Your task to perform on an android device: Search for Italian restaurants on Maps Image 0: 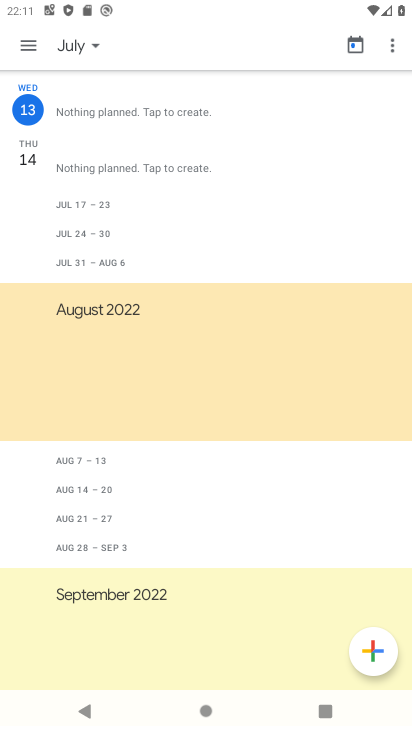
Step 0: press home button
Your task to perform on an android device: Search for Italian restaurants on Maps Image 1: 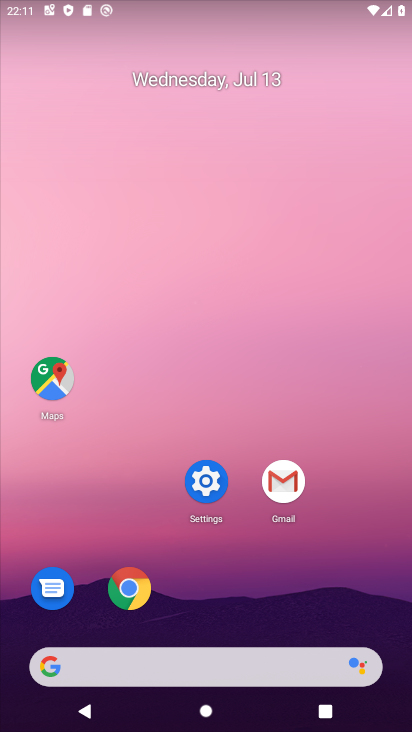
Step 1: click (43, 385)
Your task to perform on an android device: Search for Italian restaurants on Maps Image 2: 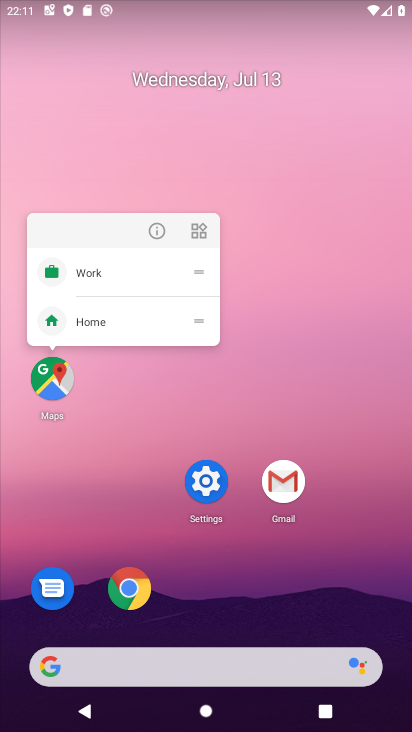
Step 2: click (52, 371)
Your task to perform on an android device: Search for Italian restaurants on Maps Image 3: 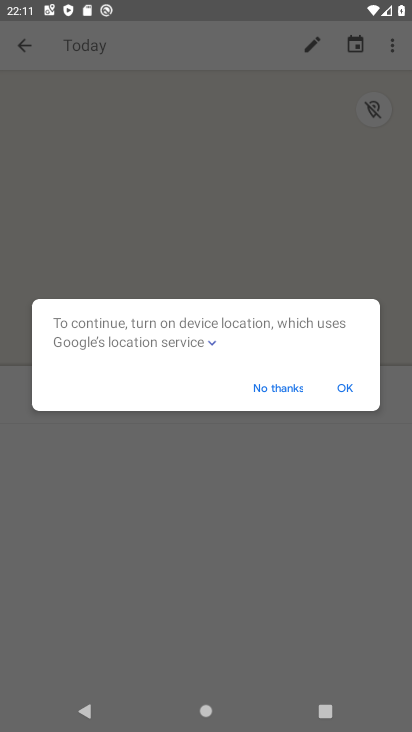
Step 3: click (23, 51)
Your task to perform on an android device: Search for Italian restaurants on Maps Image 4: 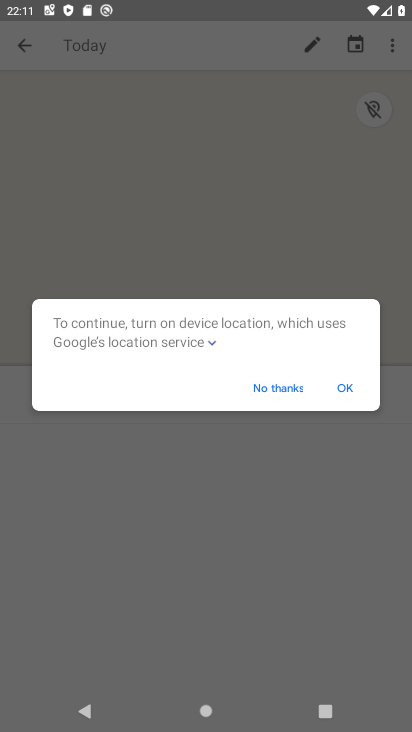
Step 4: click (351, 391)
Your task to perform on an android device: Search for Italian restaurants on Maps Image 5: 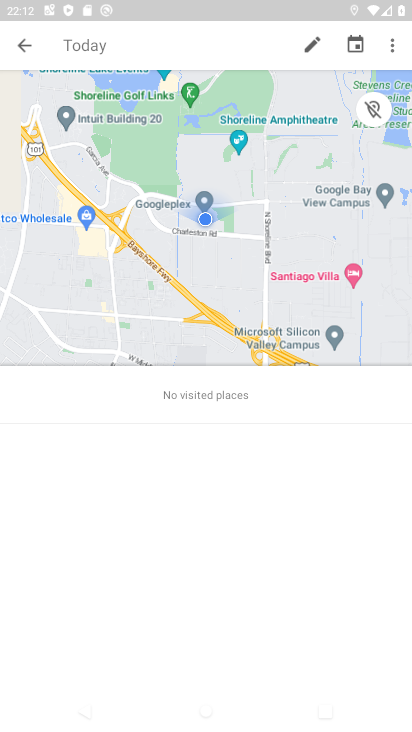
Step 5: click (18, 45)
Your task to perform on an android device: Search for Italian restaurants on Maps Image 6: 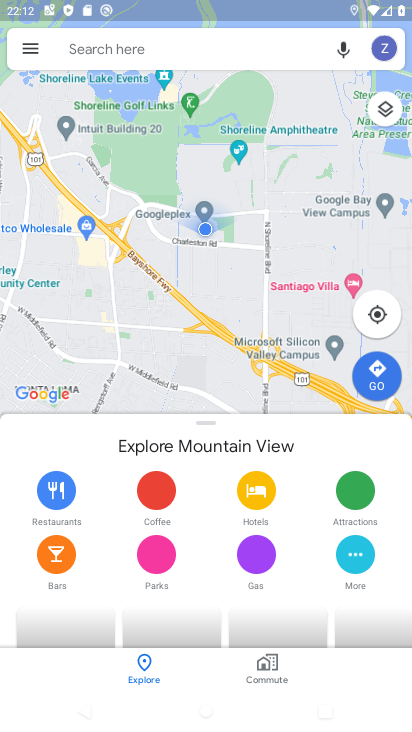
Step 6: click (94, 39)
Your task to perform on an android device: Search for Italian restaurants on Maps Image 7: 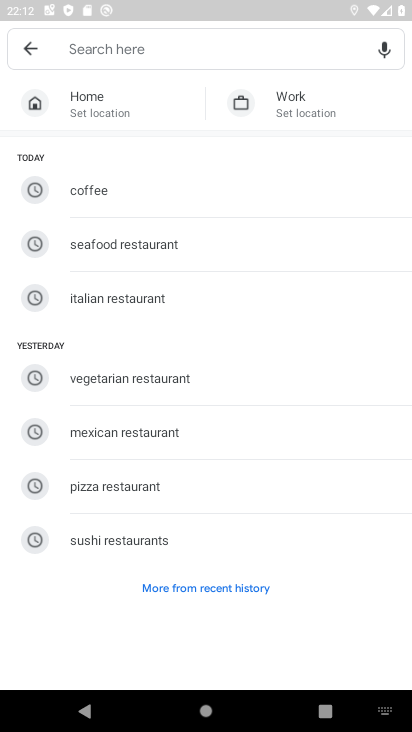
Step 7: type "Italian restaurants"
Your task to perform on an android device: Search for Italian restaurants on Maps Image 8: 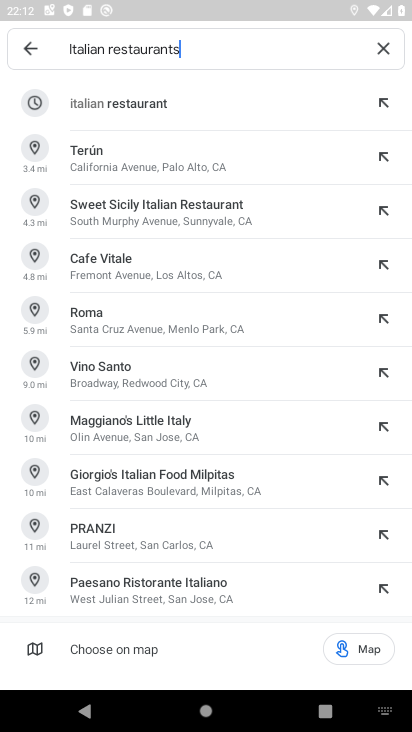
Step 8: click (148, 95)
Your task to perform on an android device: Search for Italian restaurants on Maps Image 9: 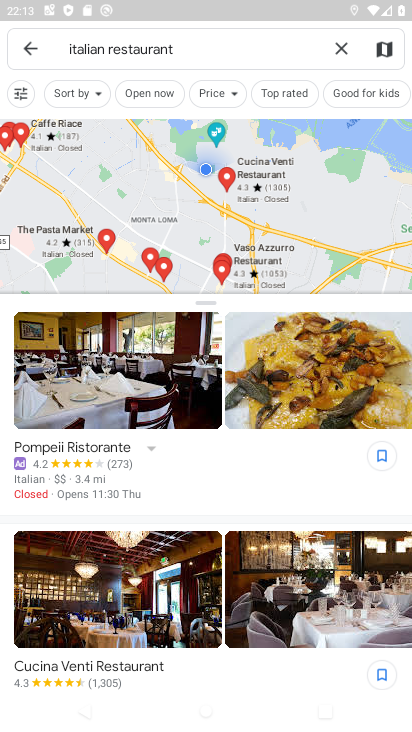
Step 9: task complete